Your task to perform on an android device: Set the phone to "Do not disturb". Image 0: 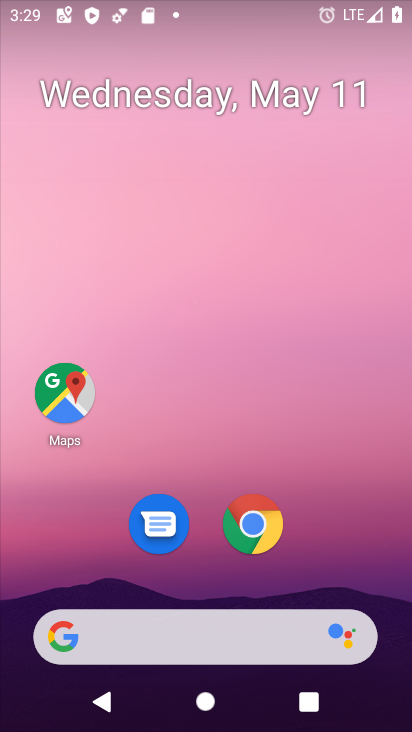
Step 0: drag from (322, 527) to (265, 51)
Your task to perform on an android device: Set the phone to "Do not disturb". Image 1: 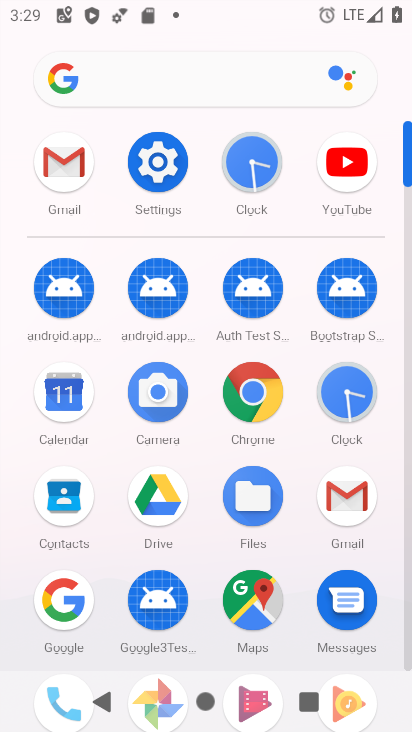
Step 1: click (160, 163)
Your task to perform on an android device: Set the phone to "Do not disturb". Image 2: 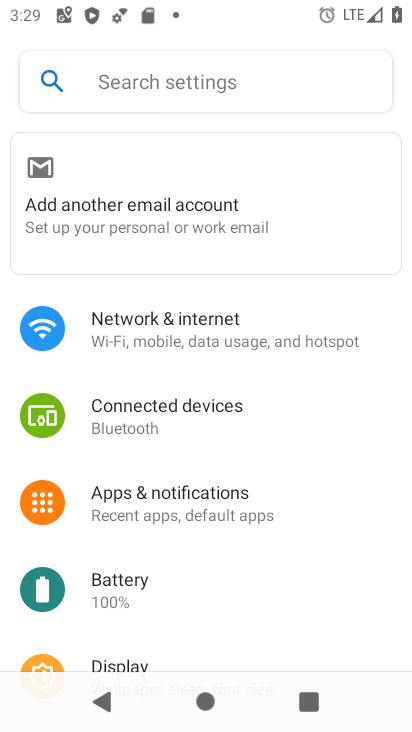
Step 2: drag from (196, 595) to (199, 136)
Your task to perform on an android device: Set the phone to "Do not disturb". Image 3: 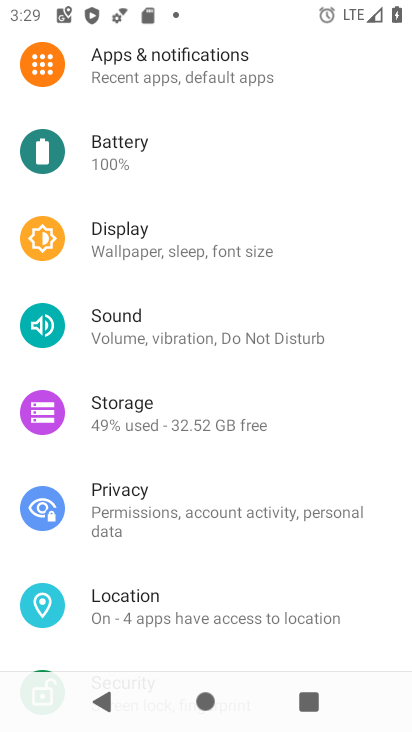
Step 3: click (184, 329)
Your task to perform on an android device: Set the phone to "Do not disturb". Image 4: 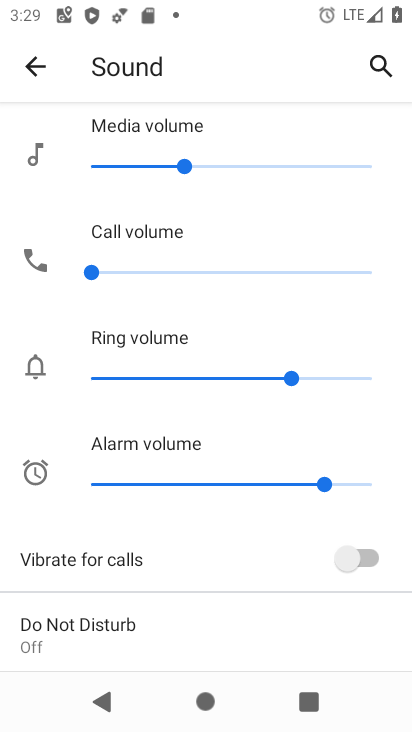
Step 4: click (135, 624)
Your task to perform on an android device: Set the phone to "Do not disturb". Image 5: 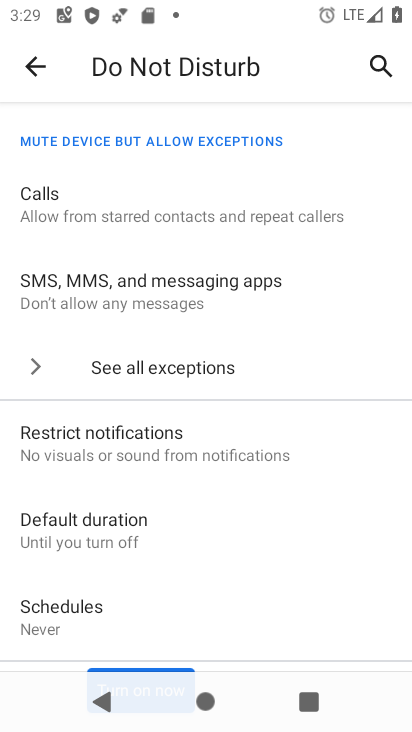
Step 5: drag from (216, 486) to (219, 225)
Your task to perform on an android device: Set the phone to "Do not disturb". Image 6: 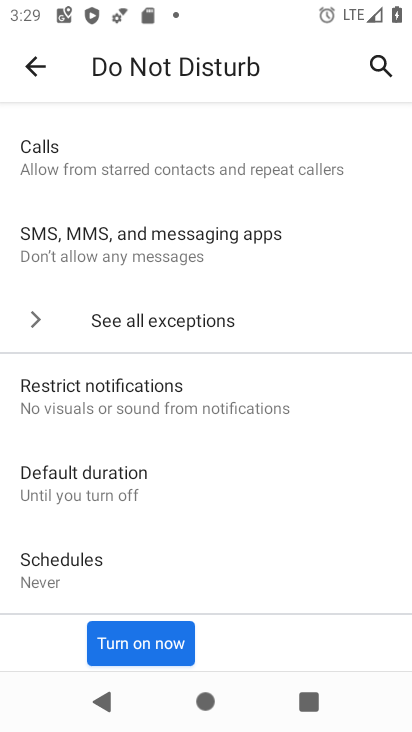
Step 6: click (160, 638)
Your task to perform on an android device: Set the phone to "Do not disturb". Image 7: 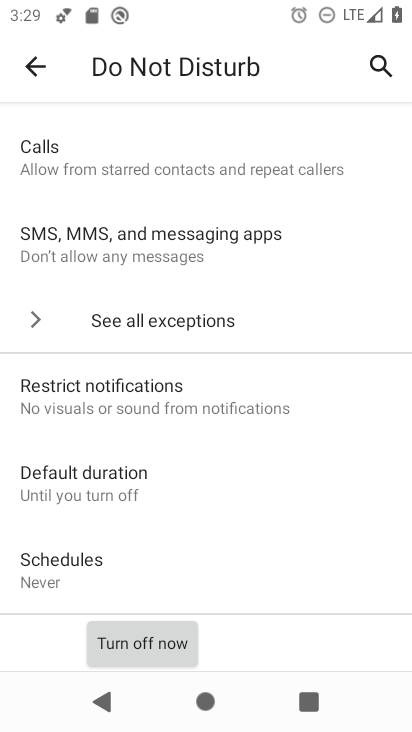
Step 7: task complete